Your task to perform on an android device: turn on sleep mode Image 0: 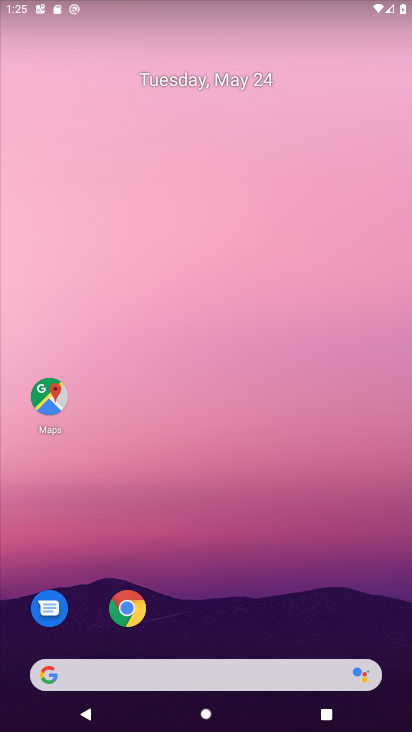
Step 0: click (305, 619)
Your task to perform on an android device: turn on sleep mode Image 1: 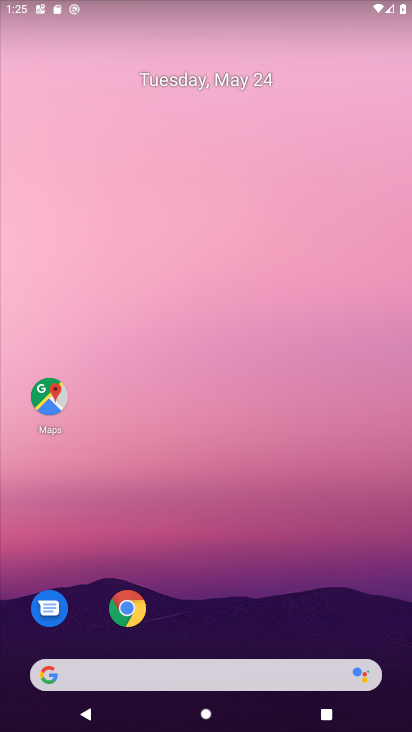
Step 1: drag from (305, 619) to (264, 22)
Your task to perform on an android device: turn on sleep mode Image 2: 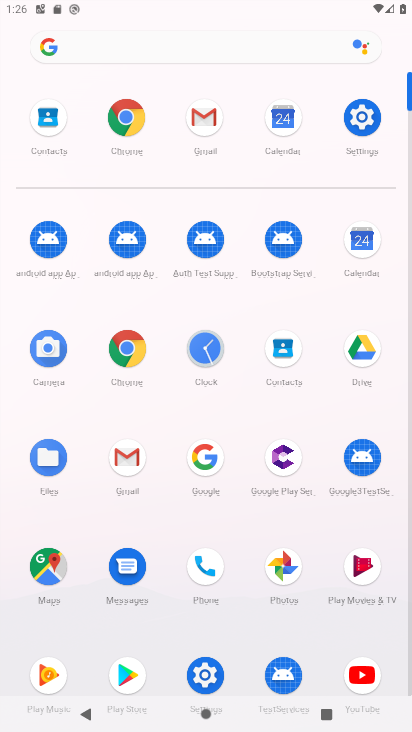
Step 2: click (361, 150)
Your task to perform on an android device: turn on sleep mode Image 3: 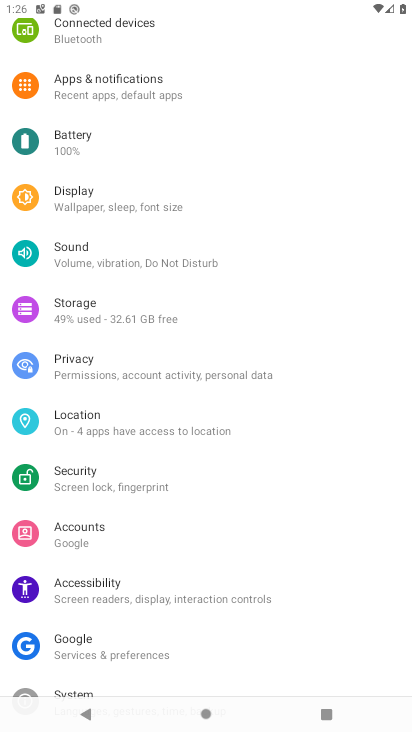
Step 3: click (143, 203)
Your task to perform on an android device: turn on sleep mode Image 4: 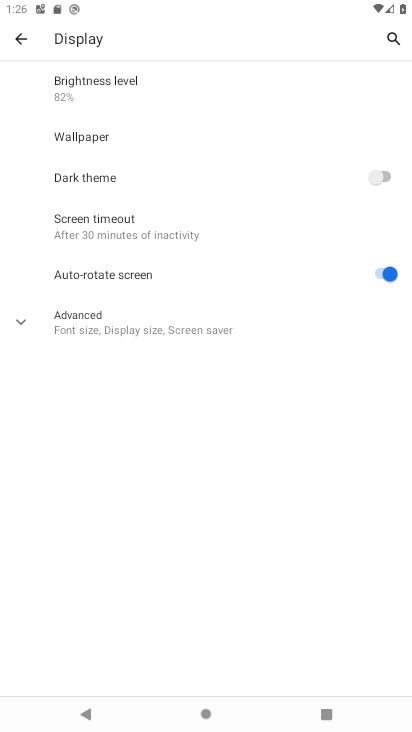
Step 4: click (158, 309)
Your task to perform on an android device: turn on sleep mode Image 5: 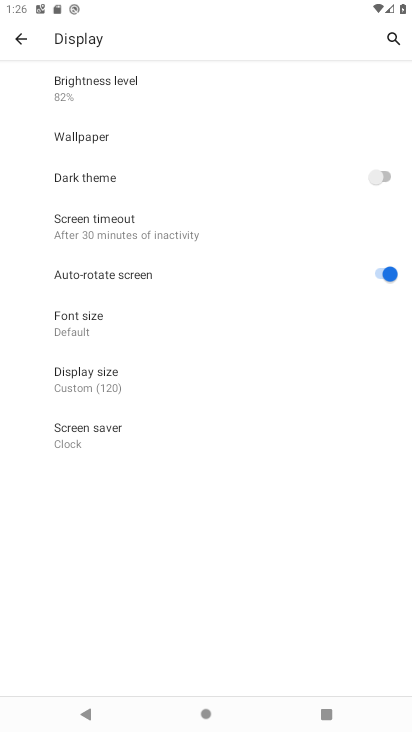
Step 5: task complete